Your task to perform on an android device: Go to privacy settings Image 0: 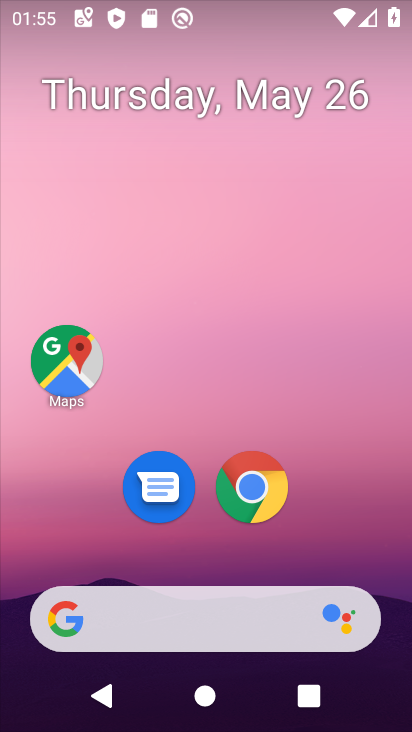
Step 0: drag from (225, 629) to (219, 81)
Your task to perform on an android device: Go to privacy settings Image 1: 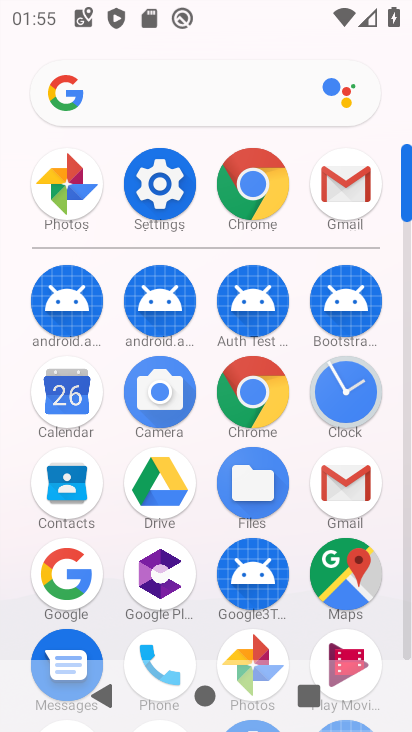
Step 1: click (179, 177)
Your task to perform on an android device: Go to privacy settings Image 2: 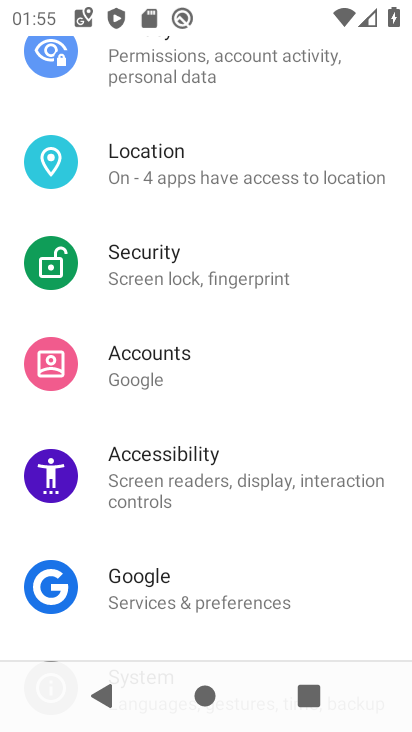
Step 2: drag from (155, 143) to (153, 544)
Your task to perform on an android device: Go to privacy settings Image 3: 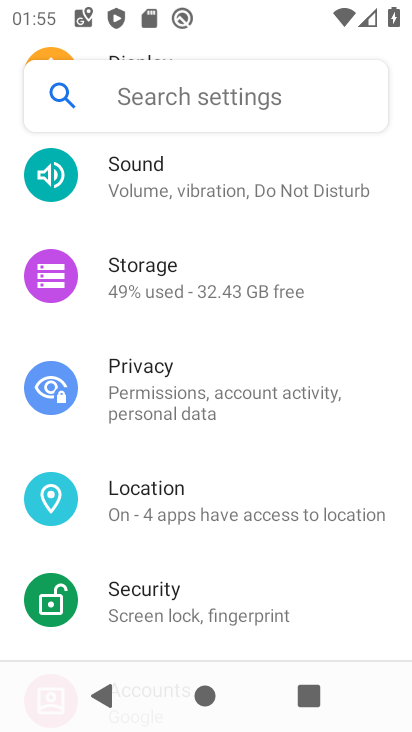
Step 3: click (171, 397)
Your task to perform on an android device: Go to privacy settings Image 4: 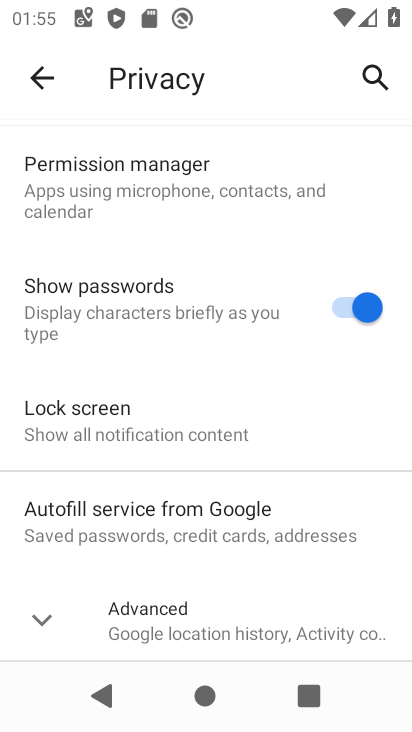
Step 4: task complete